Your task to perform on an android device: turn on notifications settings in the gmail app Image 0: 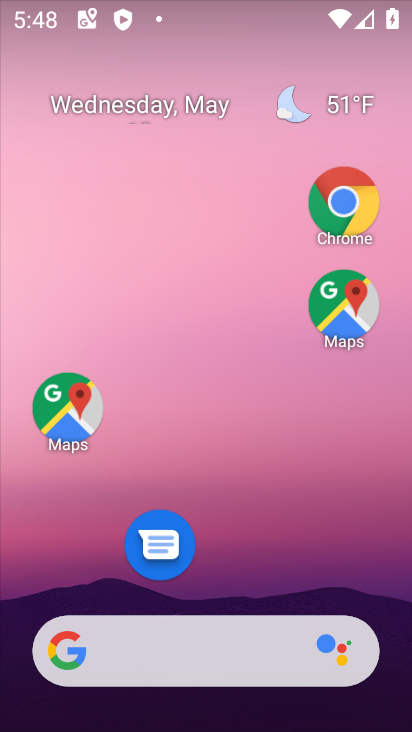
Step 0: drag from (281, 543) to (205, 21)
Your task to perform on an android device: turn on notifications settings in the gmail app Image 1: 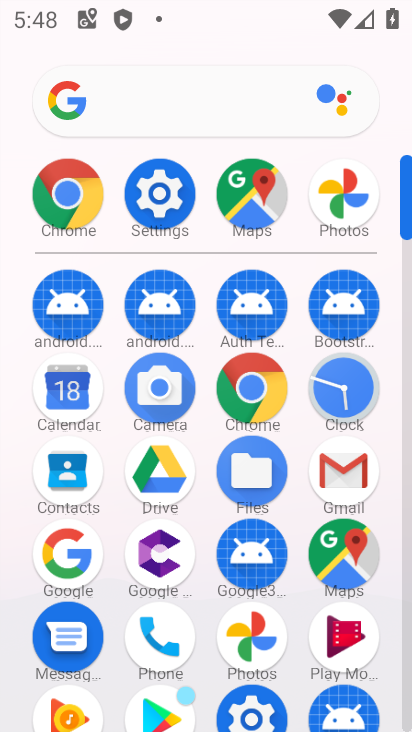
Step 1: click (337, 476)
Your task to perform on an android device: turn on notifications settings in the gmail app Image 2: 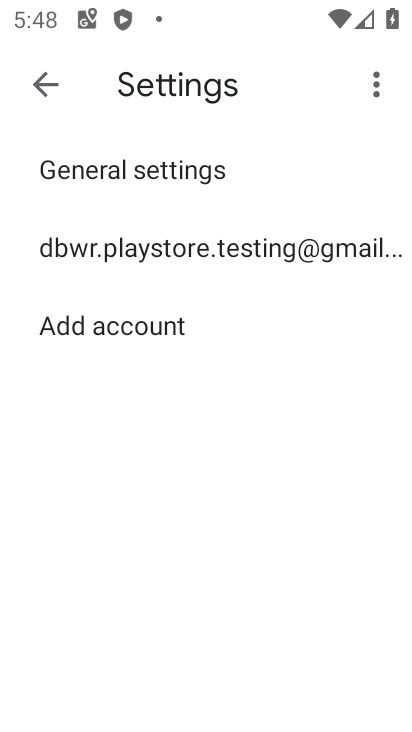
Step 2: click (164, 253)
Your task to perform on an android device: turn on notifications settings in the gmail app Image 3: 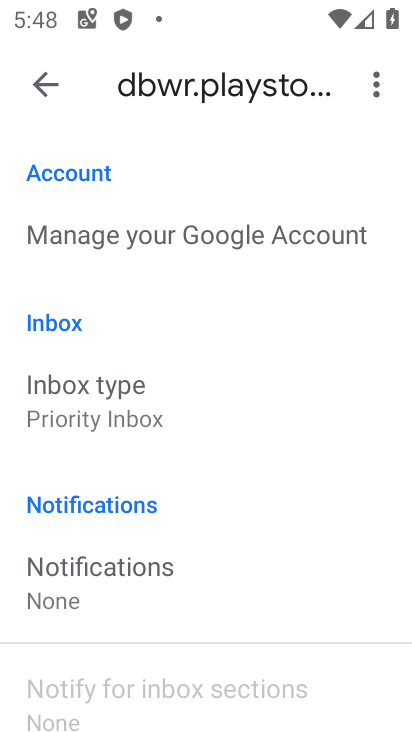
Step 3: drag from (191, 600) to (155, 213)
Your task to perform on an android device: turn on notifications settings in the gmail app Image 4: 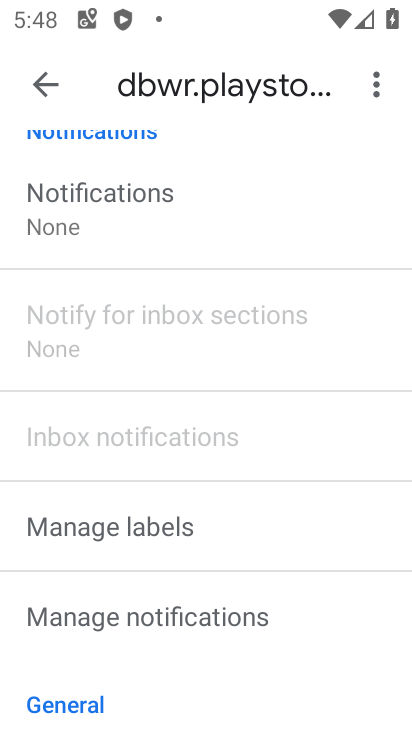
Step 4: drag from (192, 571) to (147, 167)
Your task to perform on an android device: turn on notifications settings in the gmail app Image 5: 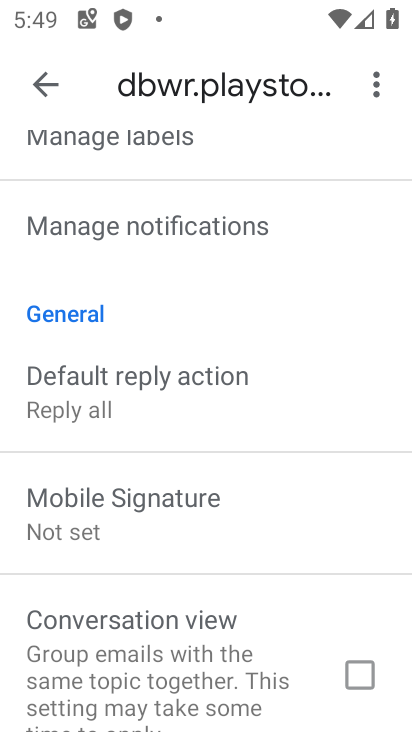
Step 5: drag from (194, 255) to (170, 731)
Your task to perform on an android device: turn on notifications settings in the gmail app Image 6: 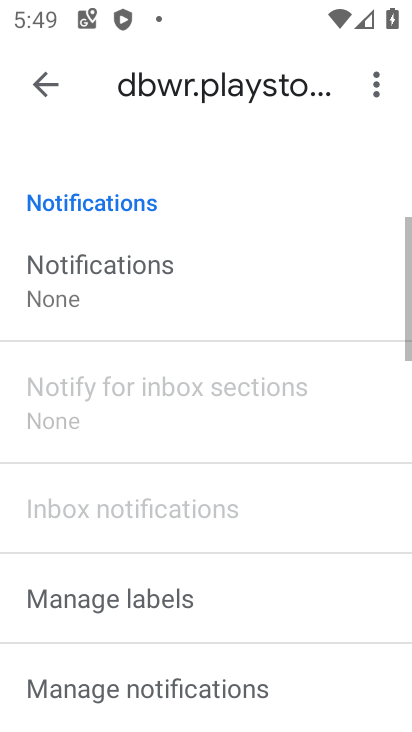
Step 6: drag from (150, 339) to (149, 730)
Your task to perform on an android device: turn on notifications settings in the gmail app Image 7: 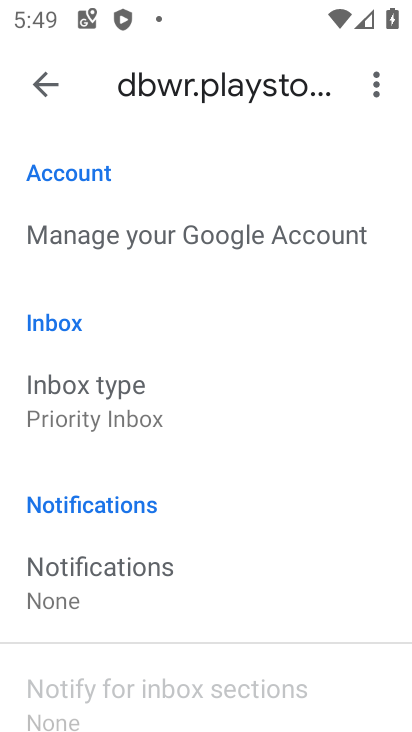
Step 7: click (148, 600)
Your task to perform on an android device: turn on notifications settings in the gmail app Image 8: 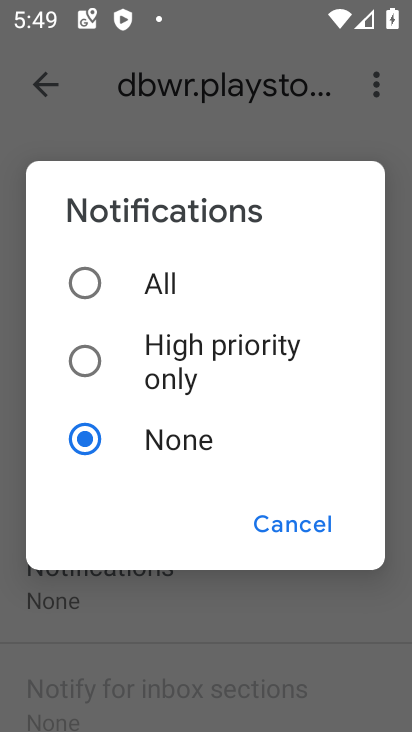
Step 8: click (91, 287)
Your task to perform on an android device: turn on notifications settings in the gmail app Image 9: 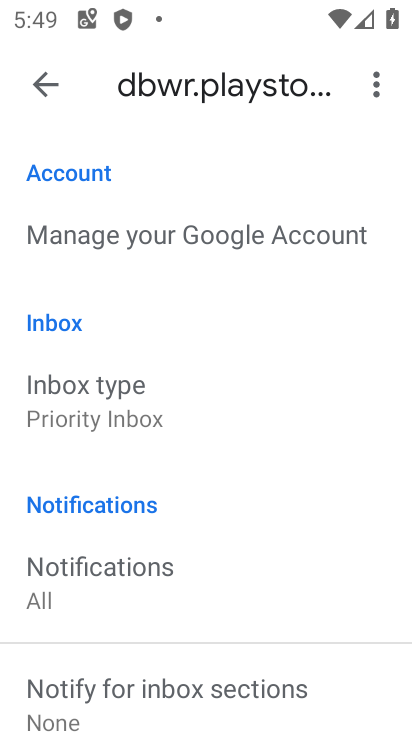
Step 9: task complete